Your task to perform on an android device: Play the last video I watched on Youtube Image 0: 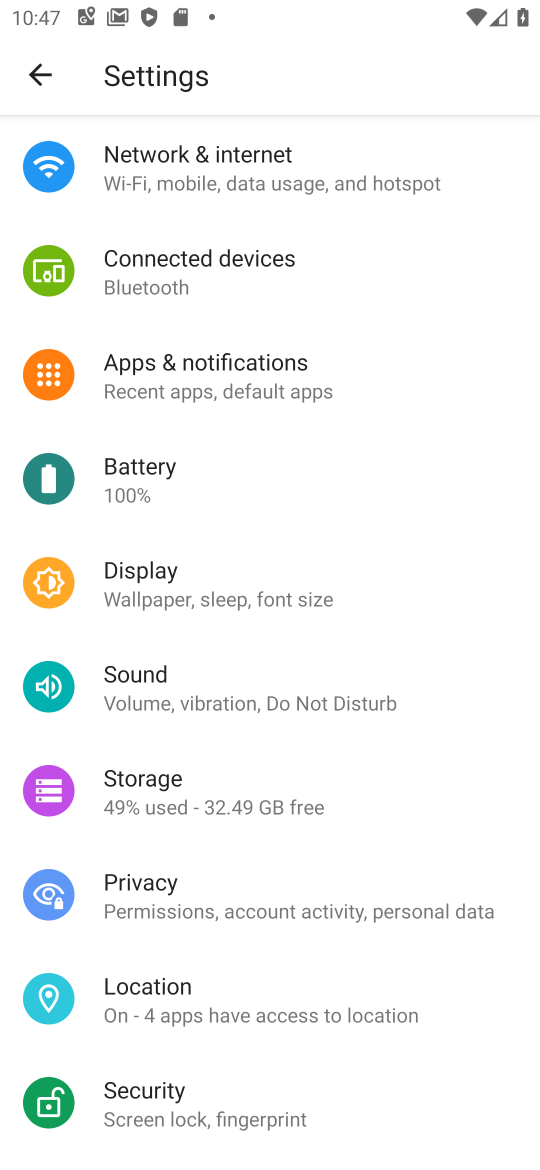
Step 0: press home button
Your task to perform on an android device: Play the last video I watched on Youtube Image 1: 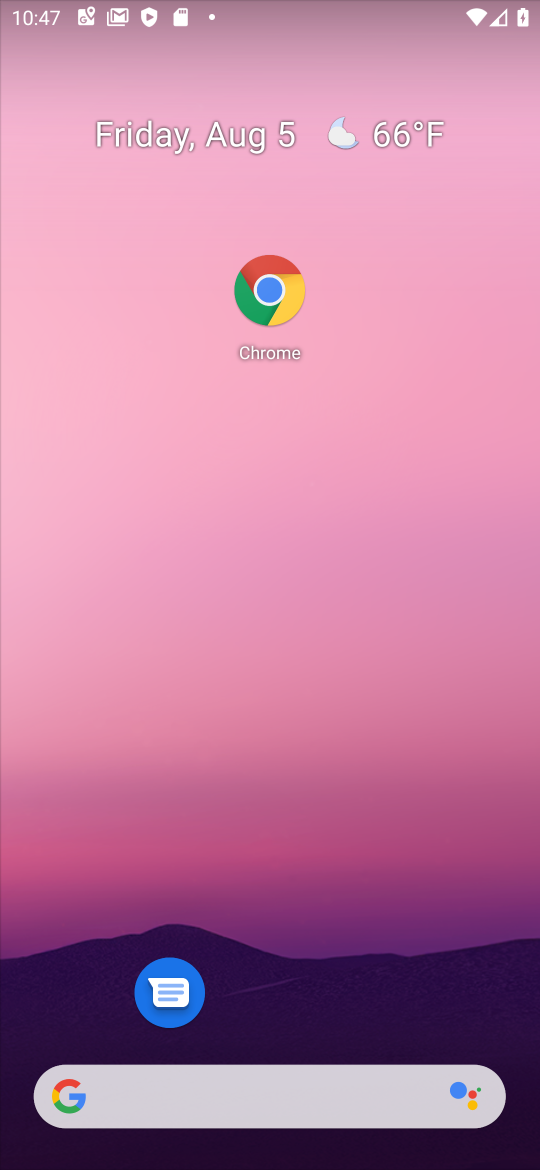
Step 1: drag from (355, 904) to (84, 3)
Your task to perform on an android device: Play the last video I watched on Youtube Image 2: 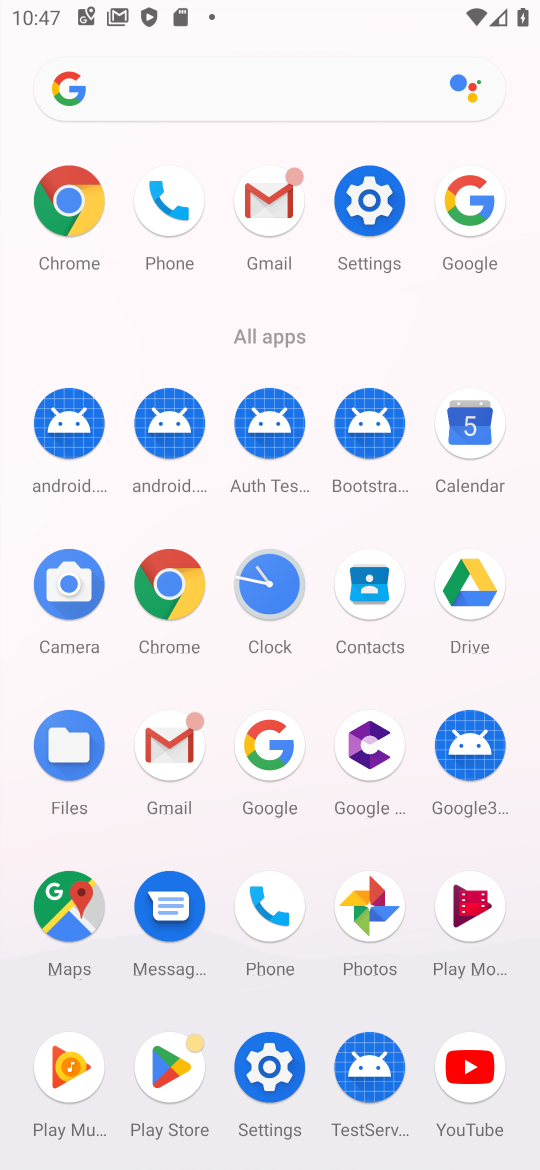
Step 2: click (471, 1061)
Your task to perform on an android device: Play the last video I watched on Youtube Image 3: 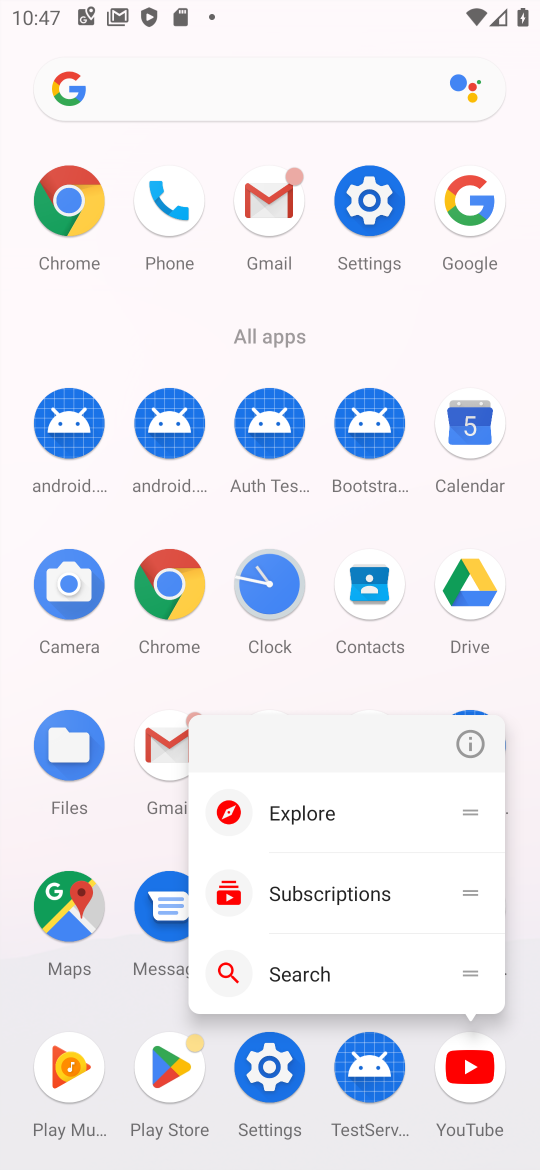
Step 3: click (474, 1069)
Your task to perform on an android device: Play the last video I watched on Youtube Image 4: 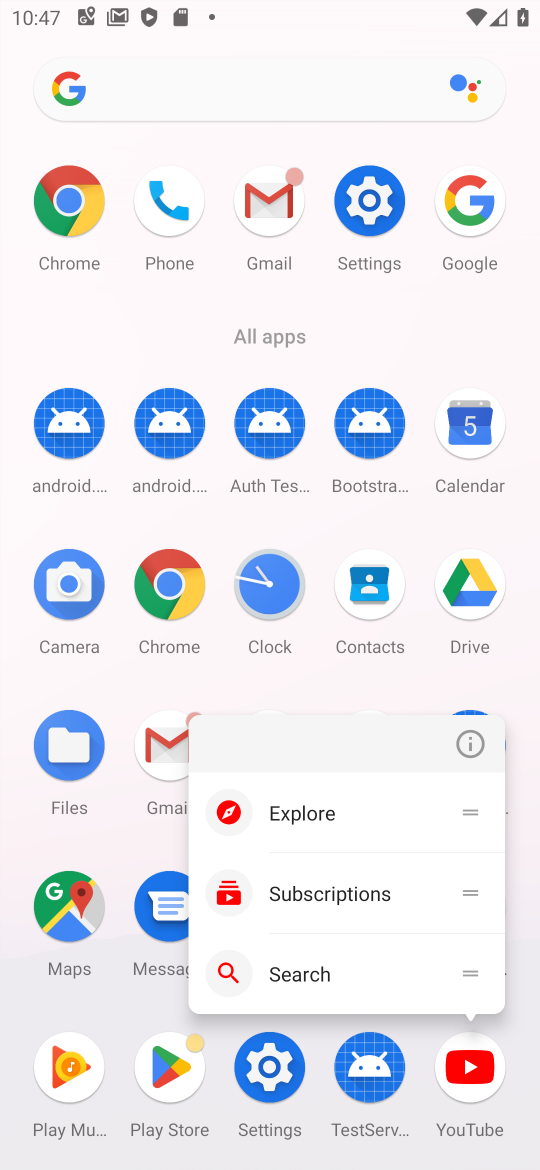
Step 4: click (474, 1072)
Your task to perform on an android device: Play the last video I watched on Youtube Image 5: 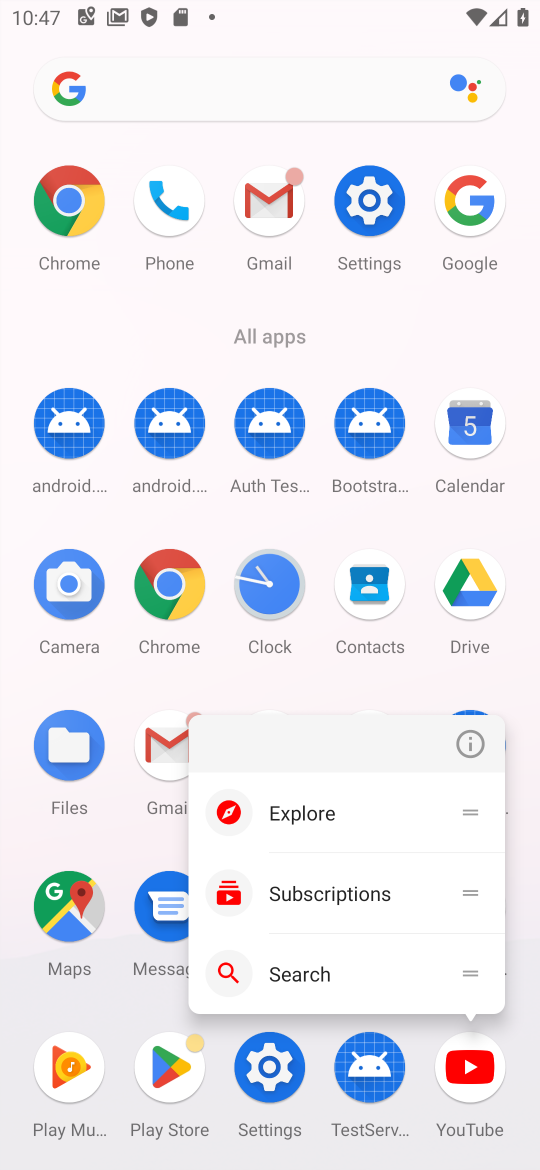
Step 5: click (474, 1068)
Your task to perform on an android device: Play the last video I watched on Youtube Image 6: 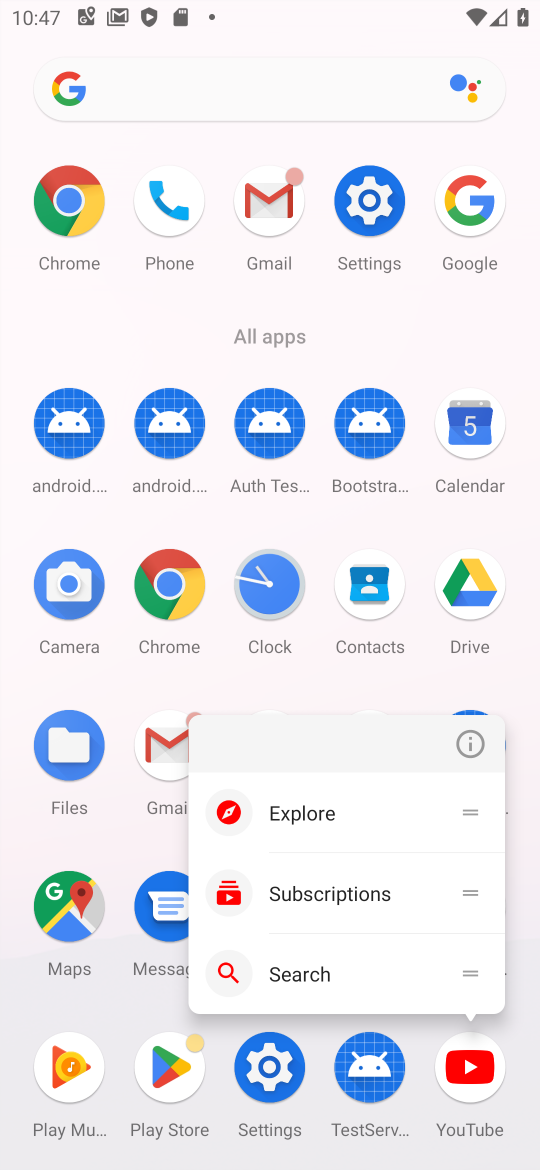
Step 6: click (474, 1071)
Your task to perform on an android device: Play the last video I watched on Youtube Image 7: 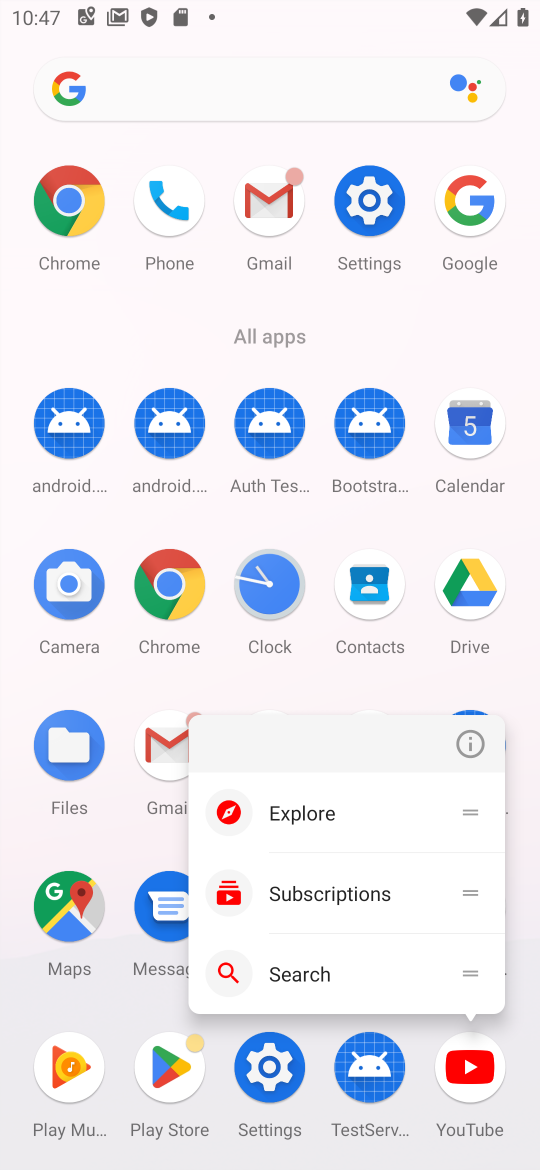
Step 7: click (474, 1067)
Your task to perform on an android device: Play the last video I watched on Youtube Image 8: 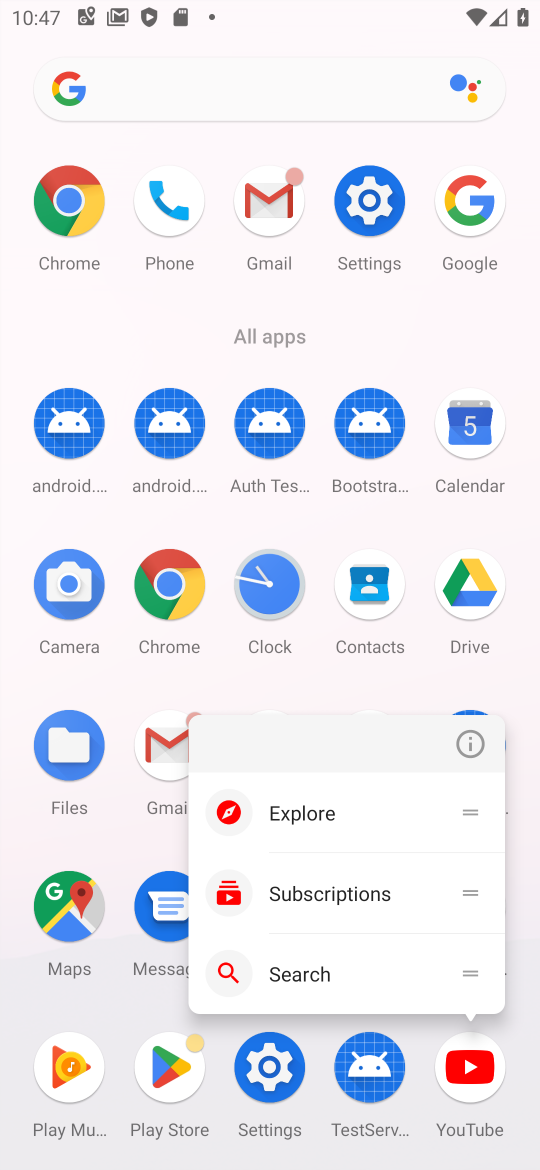
Step 8: click (474, 1064)
Your task to perform on an android device: Play the last video I watched on Youtube Image 9: 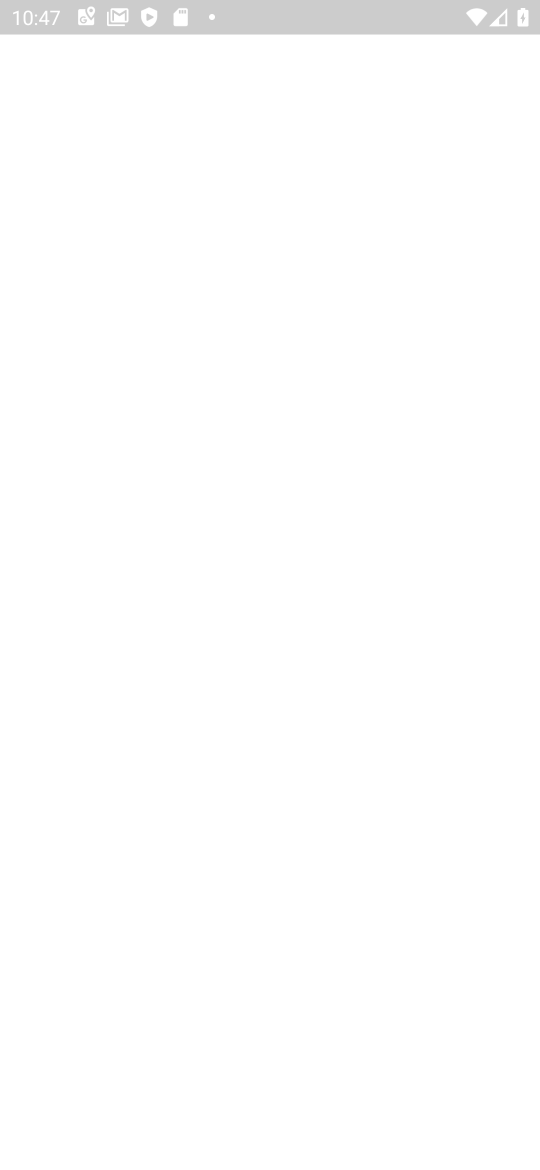
Step 9: click (474, 1066)
Your task to perform on an android device: Play the last video I watched on Youtube Image 10: 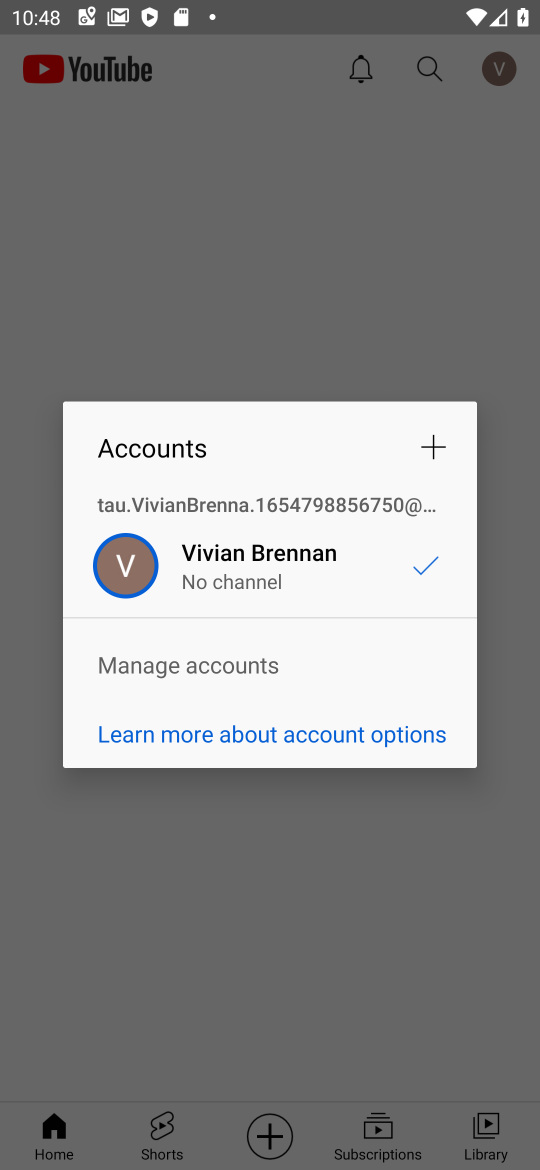
Step 10: click (248, 171)
Your task to perform on an android device: Play the last video I watched on Youtube Image 11: 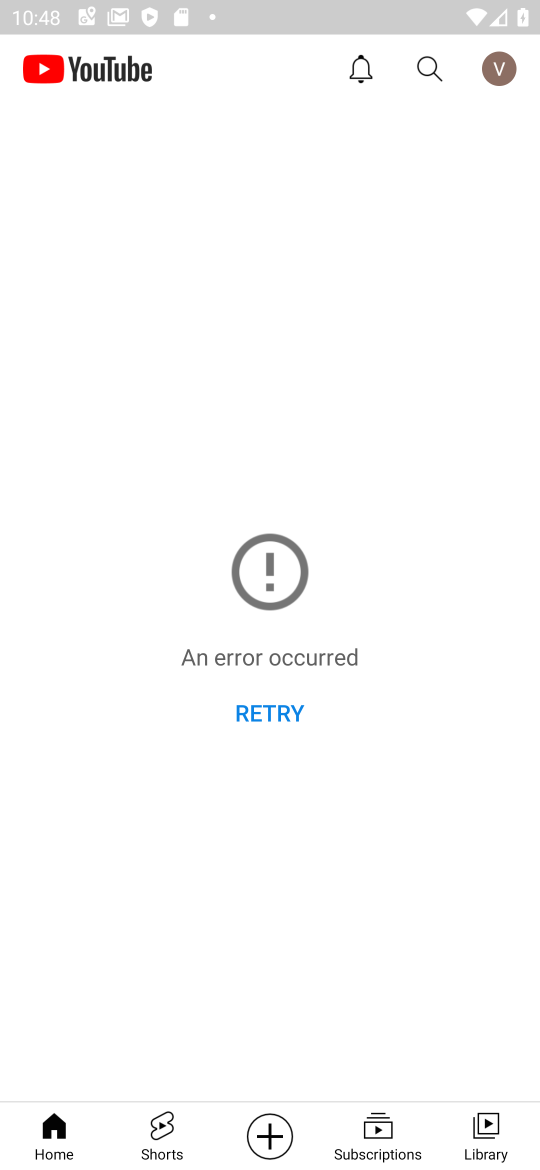
Step 11: click (484, 1137)
Your task to perform on an android device: Play the last video I watched on Youtube Image 12: 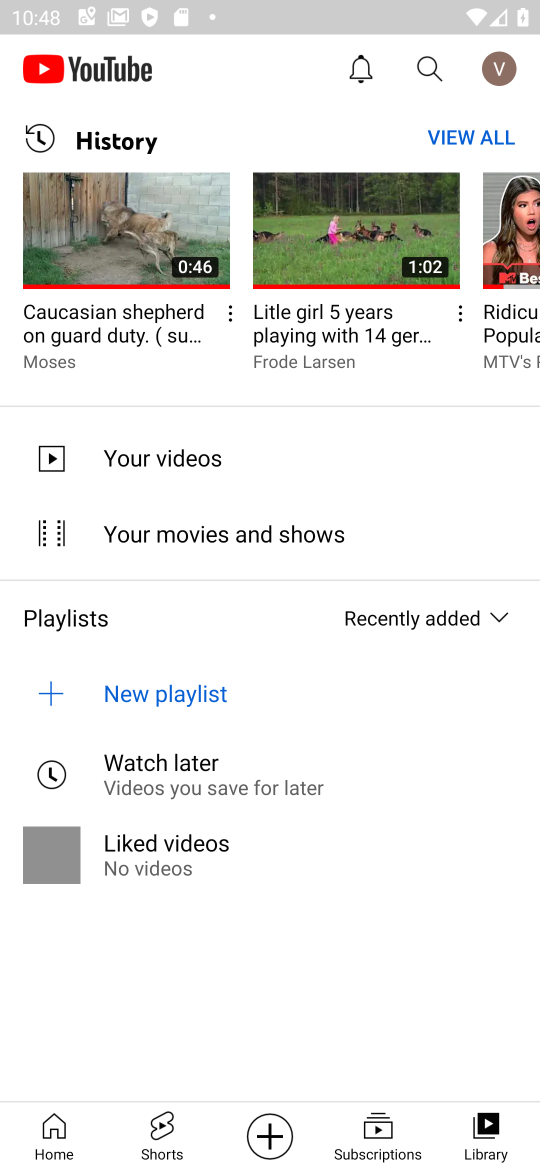
Step 12: click (150, 209)
Your task to perform on an android device: Play the last video I watched on Youtube Image 13: 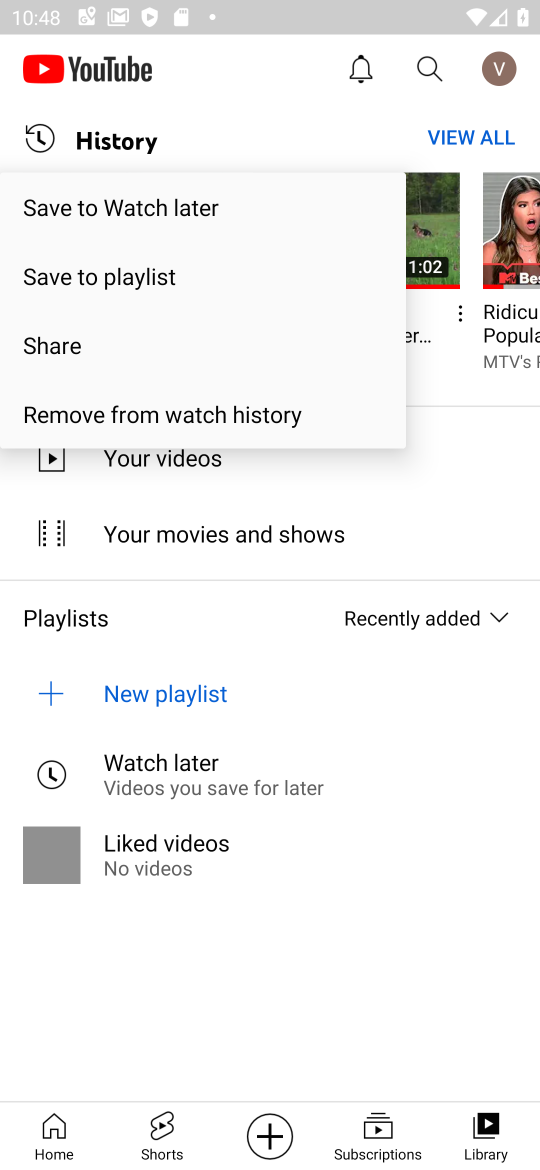
Step 13: click (431, 534)
Your task to perform on an android device: Play the last video I watched on Youtube Image 14: 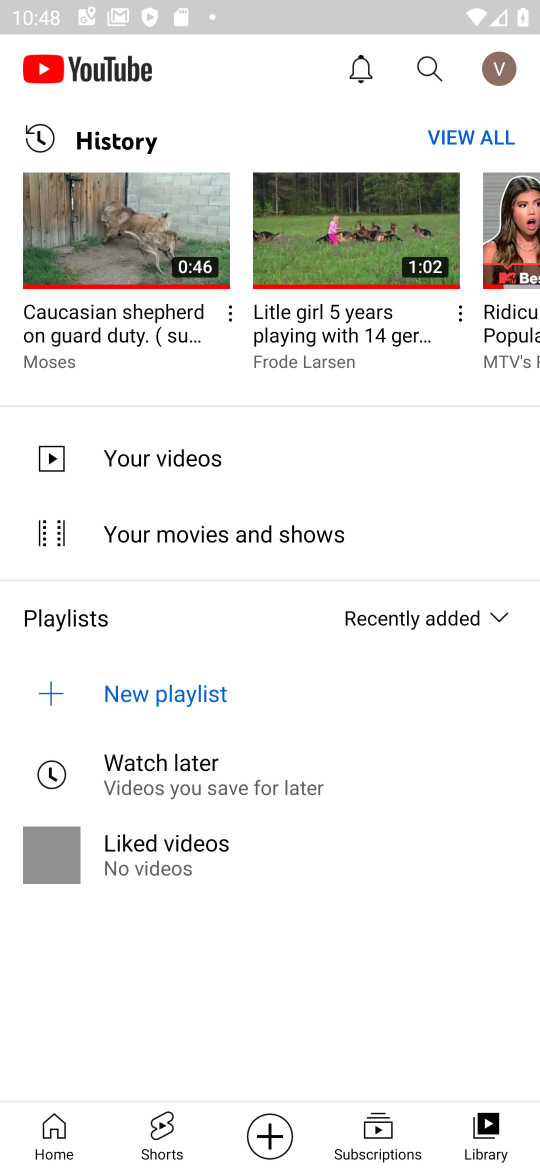
Step 14: click (175, 263)
Your task to perform on an android device: Play the last video I watched on Youtube Image 15: 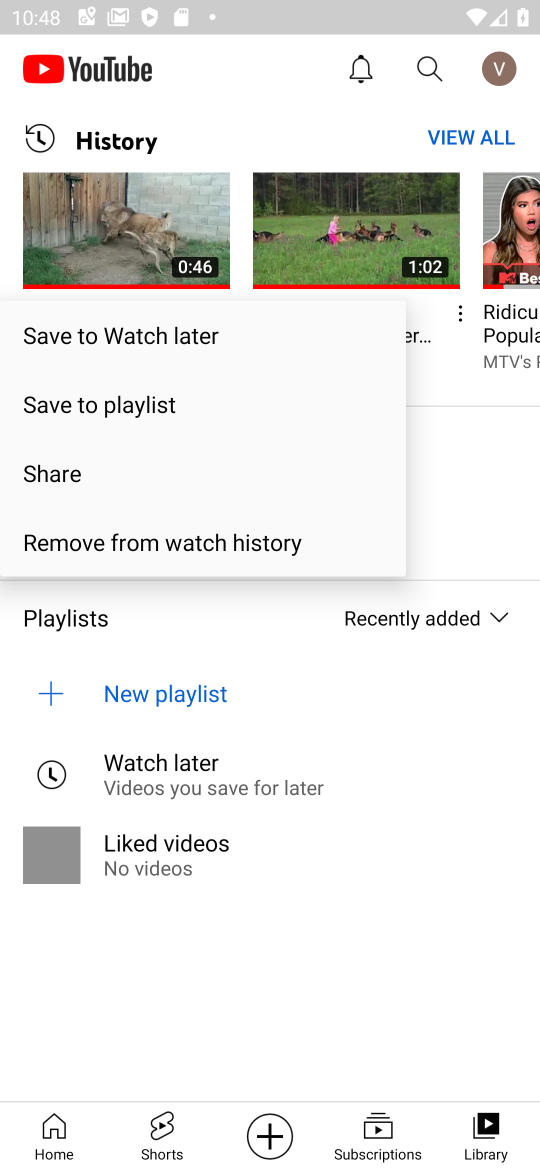
Step 15: click (175, 261)
Your task to perform on an android device: Play the last video I watched on Youtube Image 16: 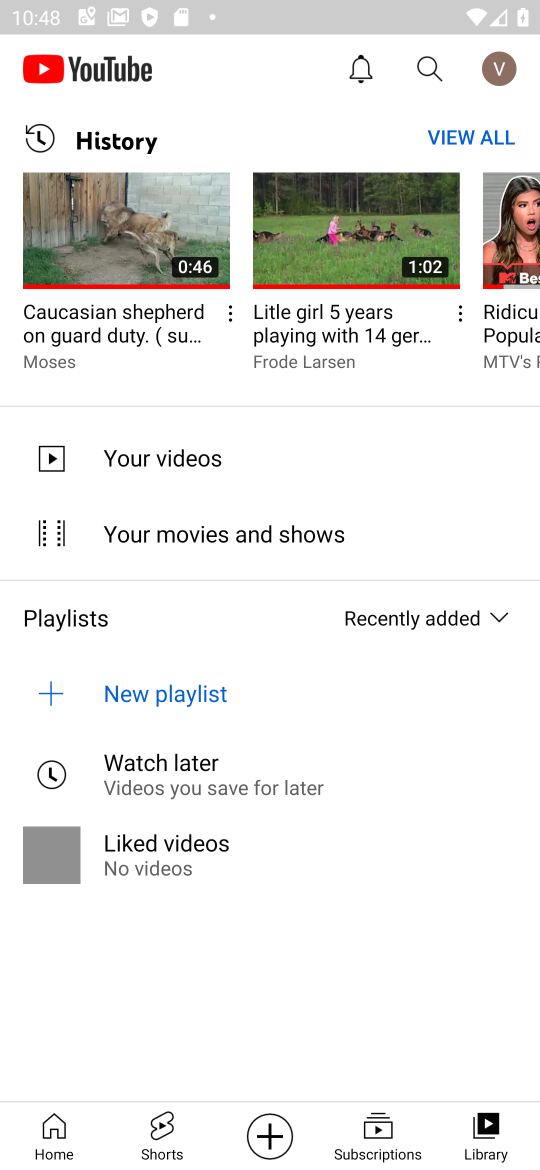
Step 16: click (170, 251)
Your task to perform on an android device: Play the last video I watched on Youtube Image 17: 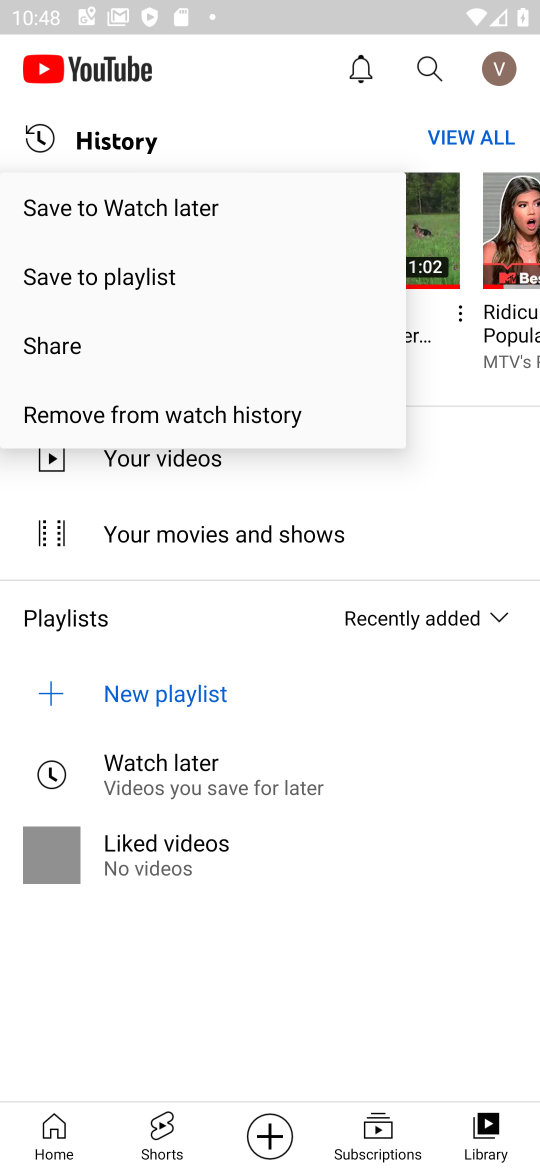
Step 17: task complete